Your task to perform on an android device: see sites visited before in the chrome app Image 0: 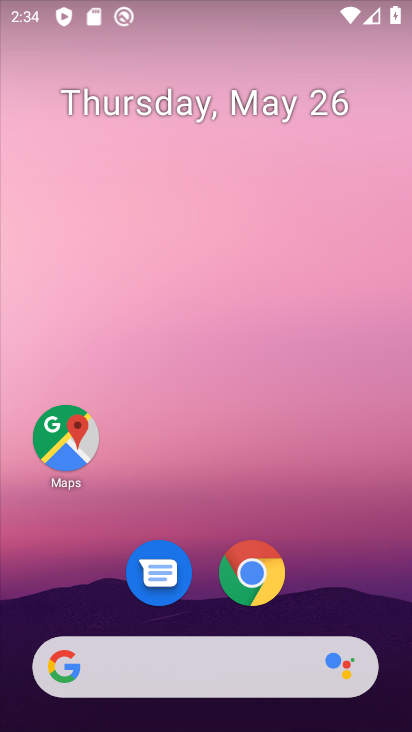
Step 0: click (259, 567)
Your task to perform on an android device: see sites visited before in the chrome app Image 1: 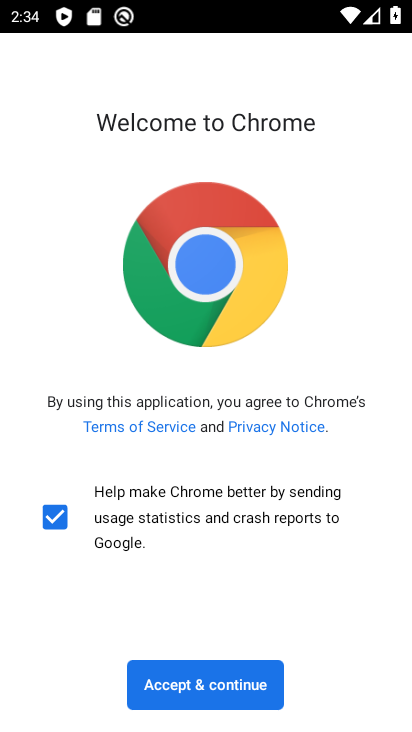
Step 1: click (199, 678)
Your task to perform on an android device: see sites visited before in the chrome app Image 2: 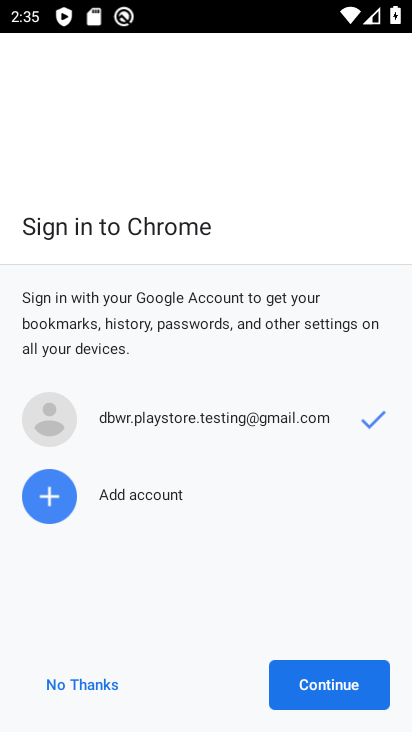
Step 2: click (303, 690)
Your task to perform on an android device: see sites visited before in the chrome app Image 3: 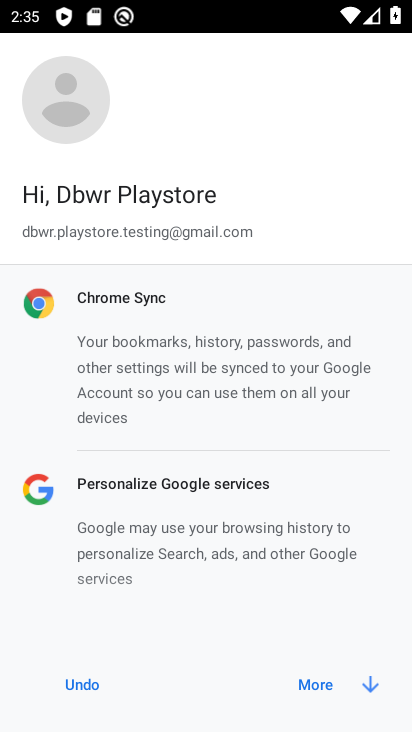
Step 3: click (318, 678)
Your task to perform on an android device: see sites visited before in the chrome app Image 4: 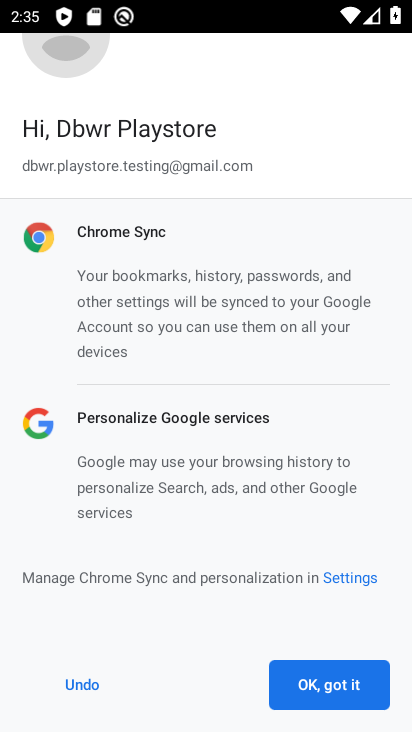
Step 4: click (318, 678)
Your task to perform on an android device: see sites visited before in the chrome app Image 5: 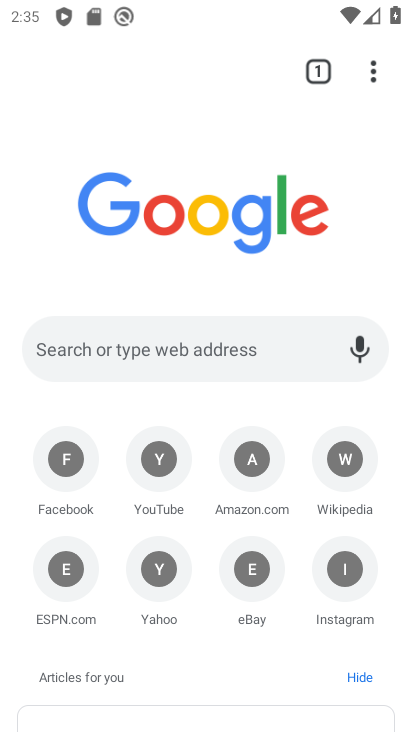
Step 5: click (377, 81)
Your task to perform on an android device: see sites visited before in the chrome app Image 6: 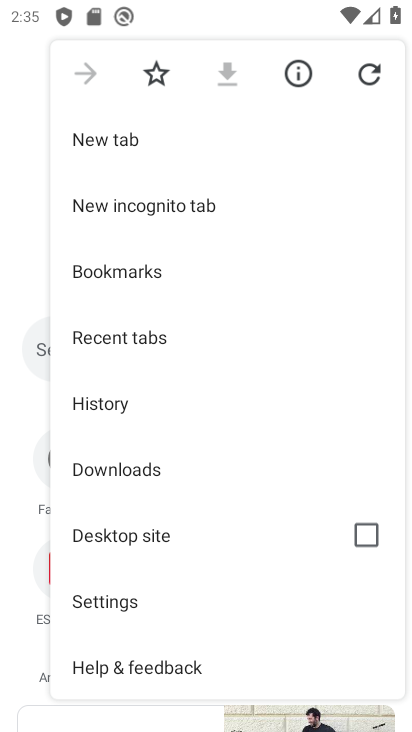
Step 6: click (137, 397)
Your task to perform on an android device: see sites visited before in the chrome app Image 7: 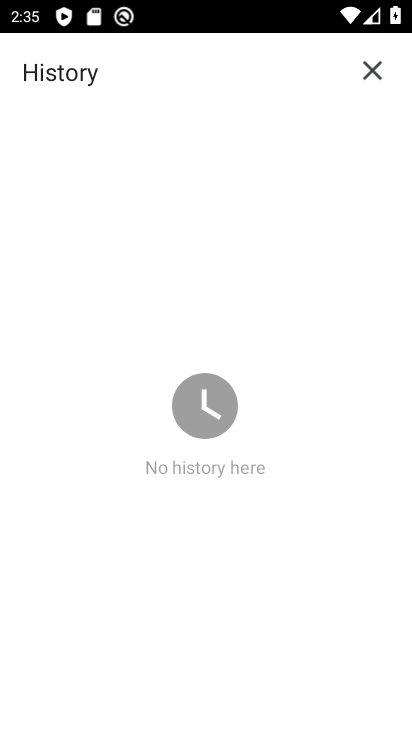
Step 7: task complete